Your task to perform on an android device: toggle translation in the chrome app Image 0: 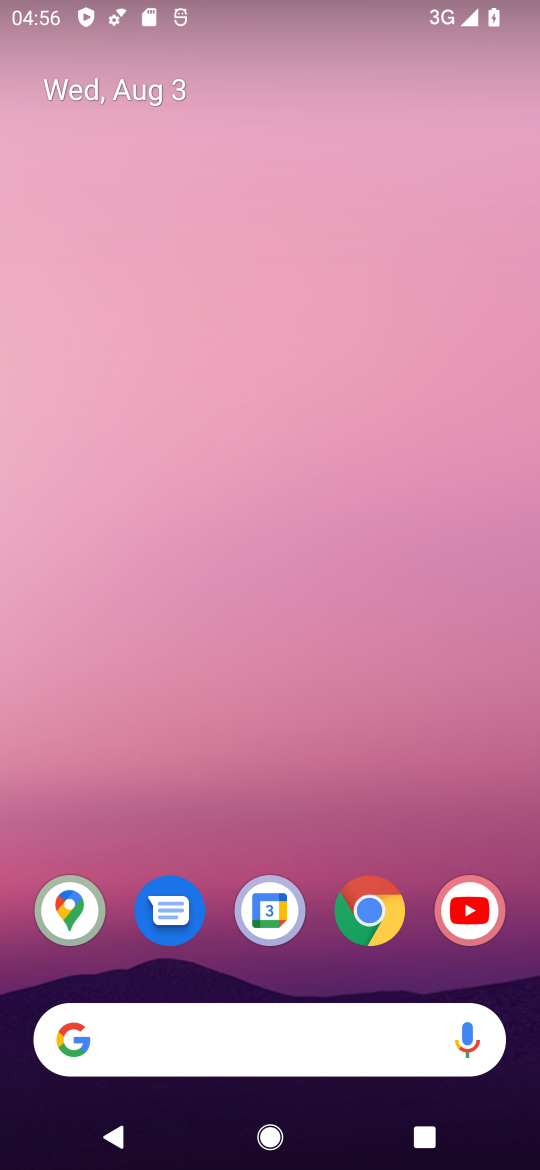
Step 0: click (365, 899)
Your task to perform on an android device: toggle translation in the chrome app Image 1: 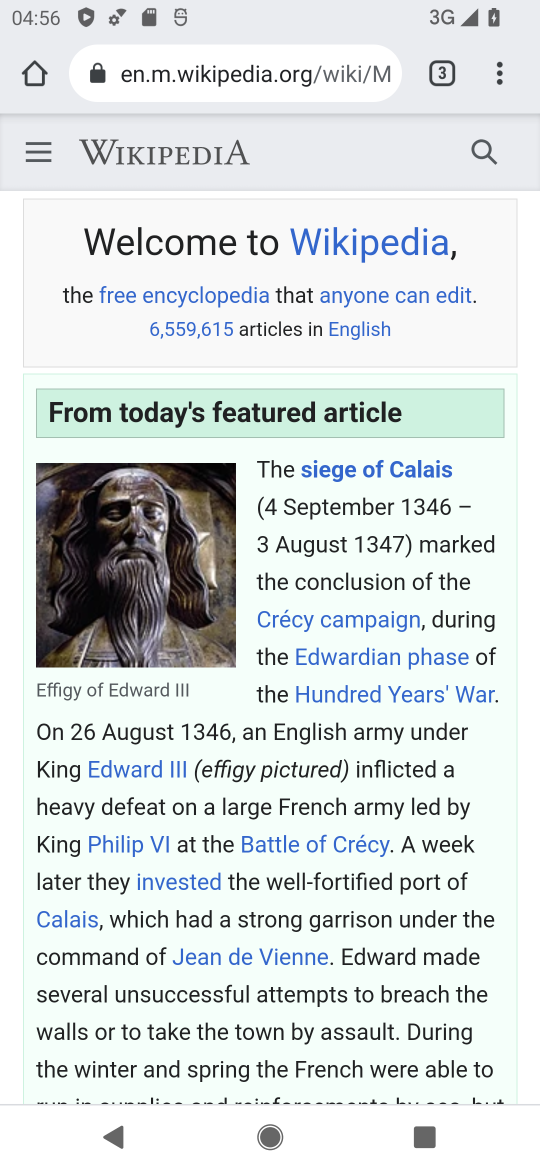
Step 1: click (492, 76)
Your task to perform on an android device: toggle translation in the chrome app Image 2: 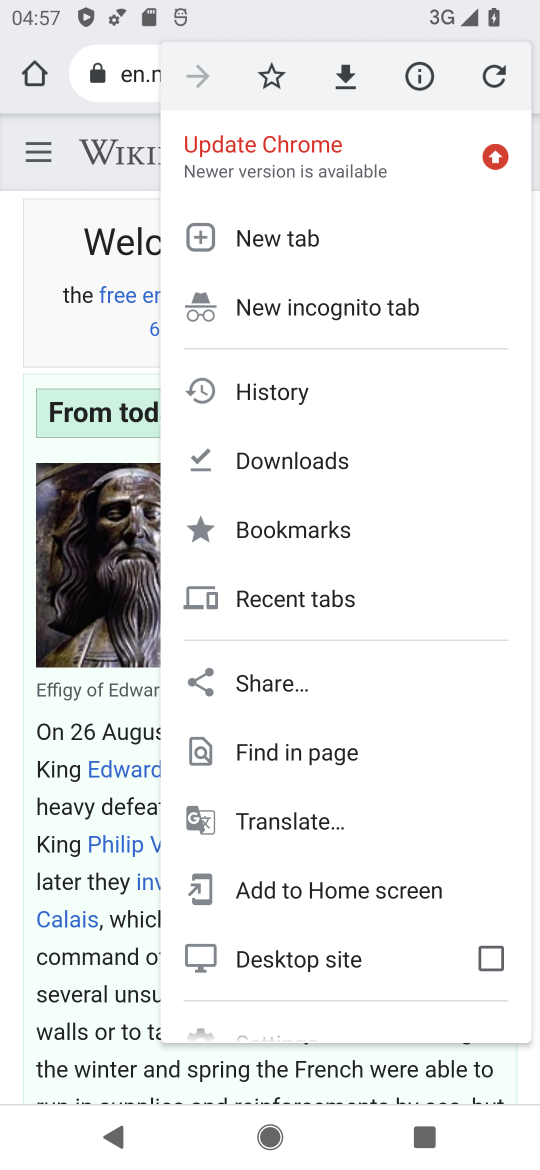
Step 2: drag from (319, 920) to (319, 13)
Your task to perform on an android device: toggle translation in the chrome app Image 3: 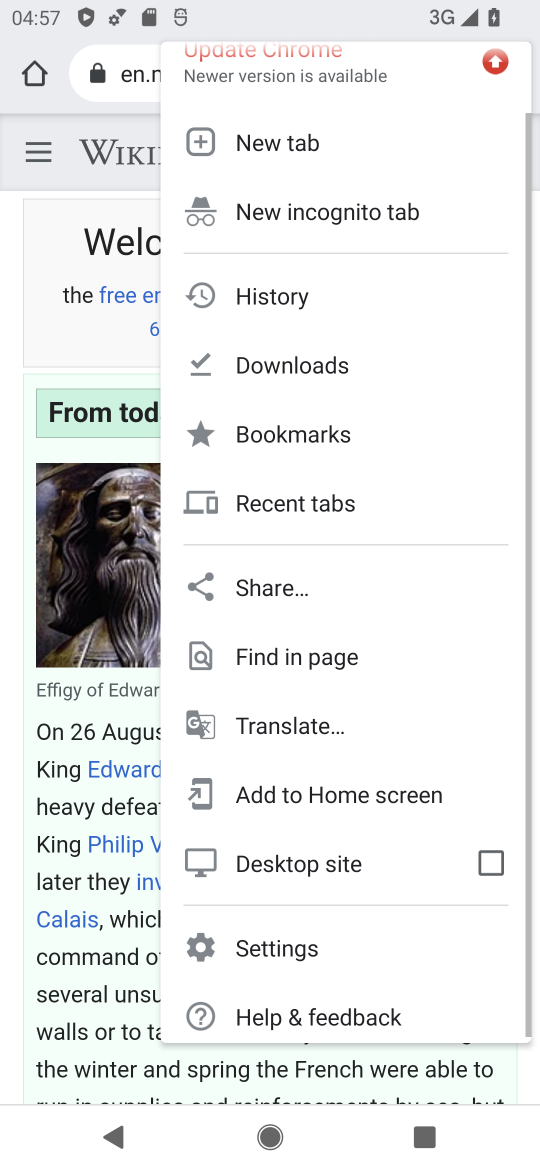
Step 3: click (334, 941)
Your task to perform on an android device: toggle translation in the chrome app Image 4: 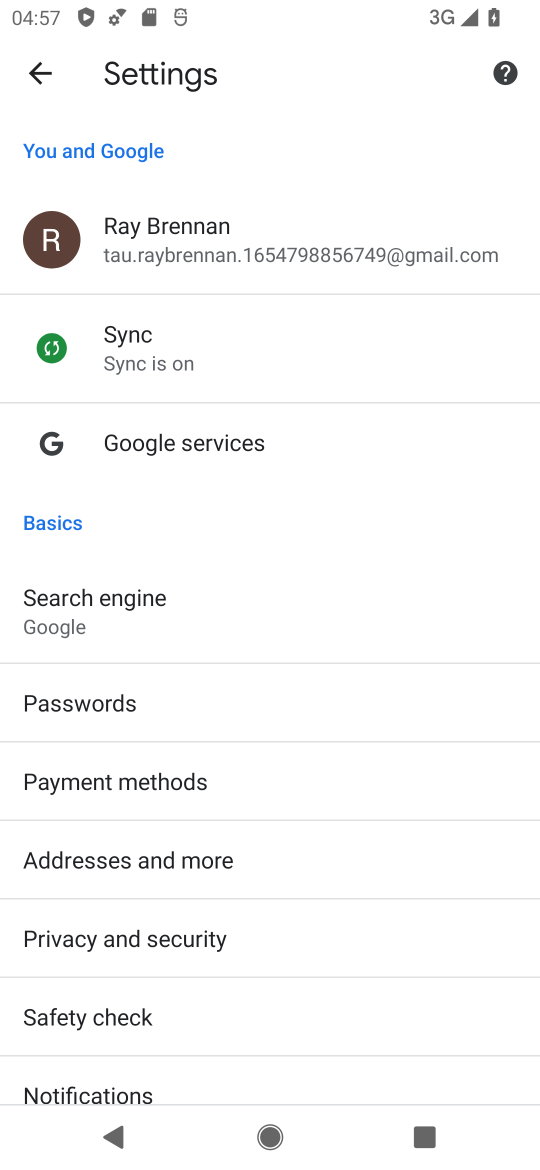
Step 4: drag from (213, 1044) to (200, 365)
Your task to perform on an android device: toggle translation in the chrome app Image 5: 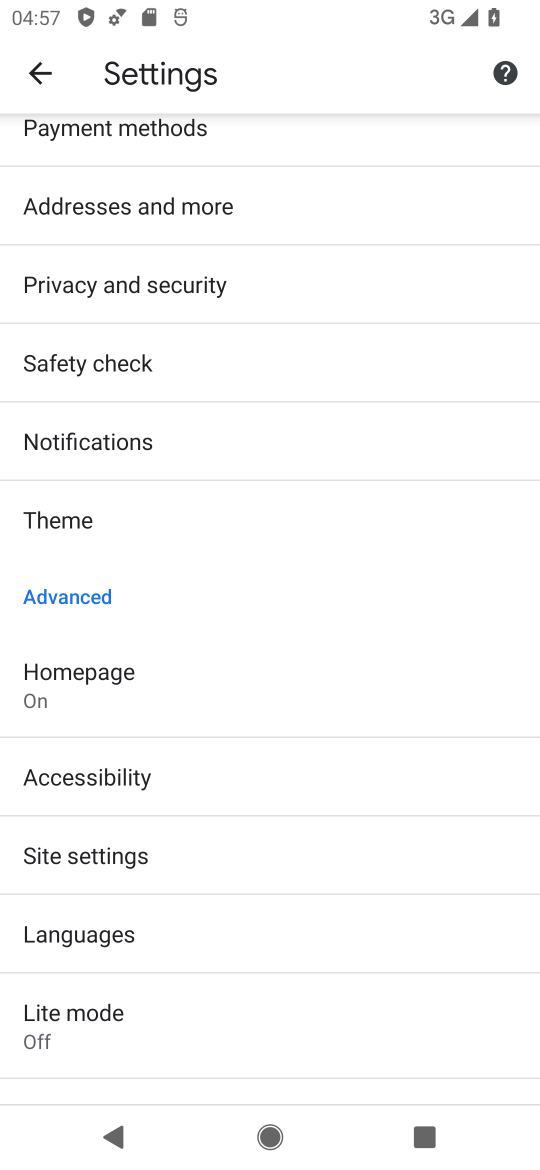
Step 5: click (147, 932)
Your task to perform on an android device: toggle translation in the chrome app Image 6: 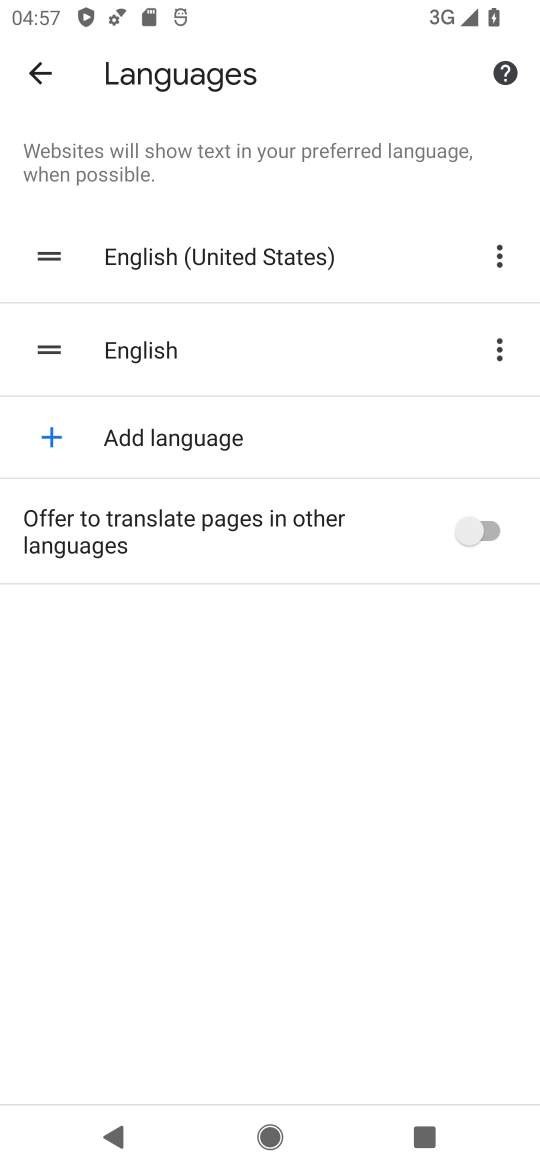
Step 6: click (486, 523)
Your task to perform on an android device: toggle translation in the chrome app Image 7: 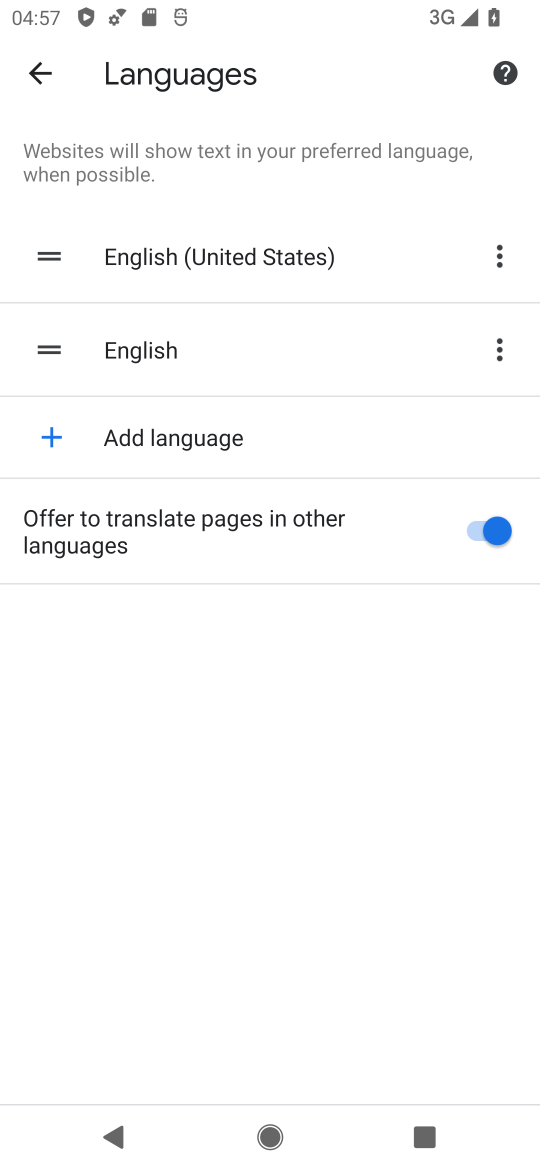
Step 7: task complete